Your task to perform on an android device: turn on airplane mode Image 0: 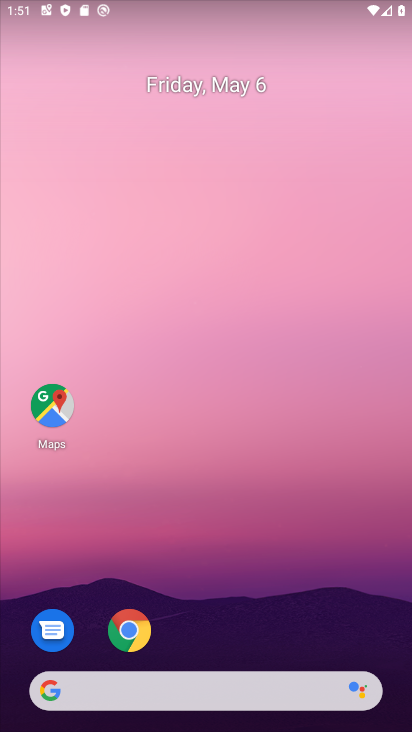
Step 0: drag from (221, 675) to (223, 89)
Your task to perform on an android device: turn on airplane mode Image 1: 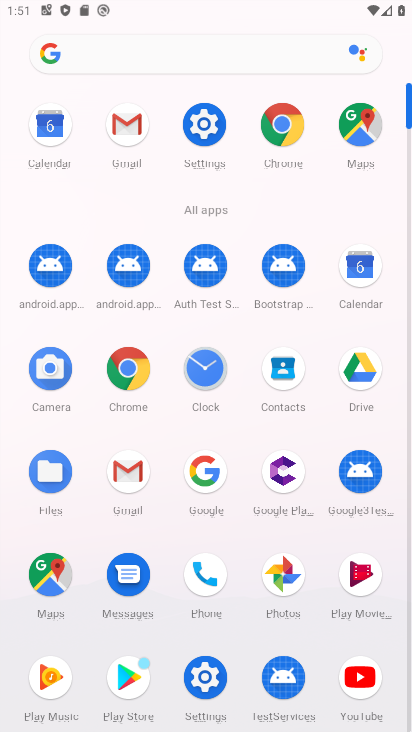
Step 1: click (197, 135)
Your task to perform on an android device: turn on airplane mode Image 2: 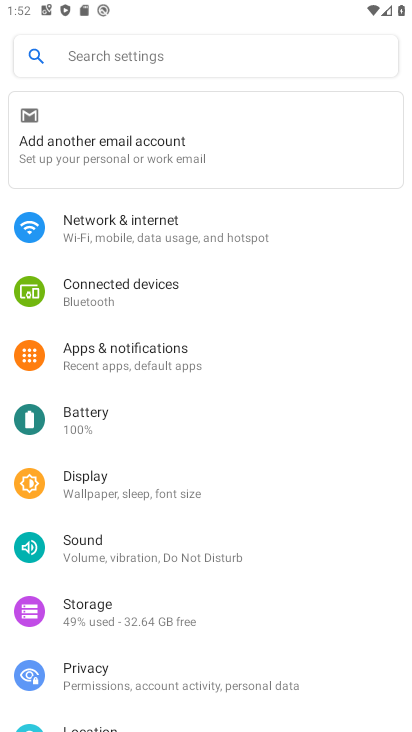
Step 2: click (172, 245)
Your task to perform on an android device: turn on airplane mode Image 3: 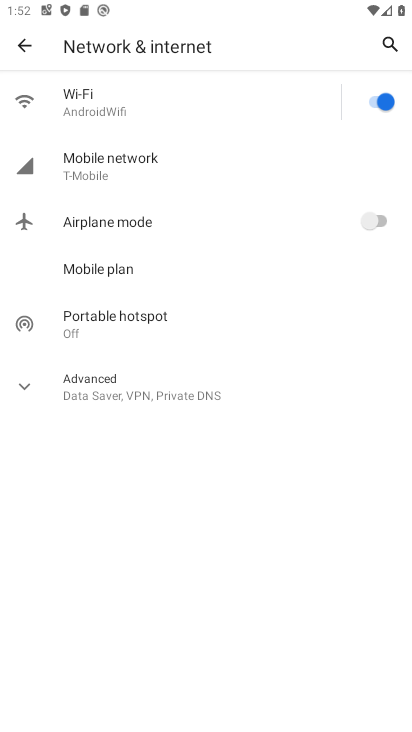
Step 3: click (366, 224)
Your task to perform on an android device: turn on airplane mode Image 4: 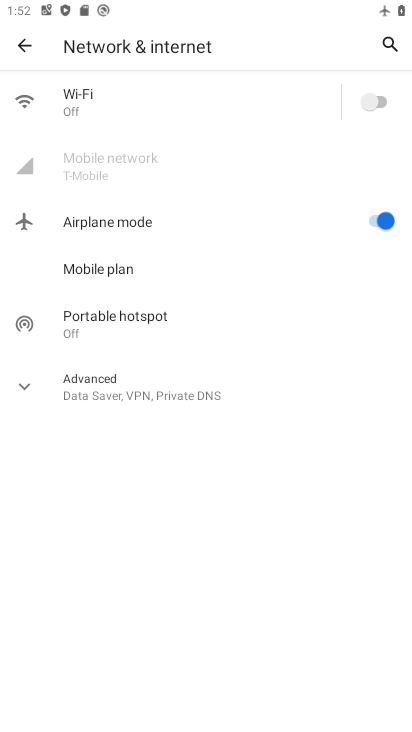
Step 4: task complete